Your task to perform on an android device: Open calendar and show me the fourth week of next month Image 0: 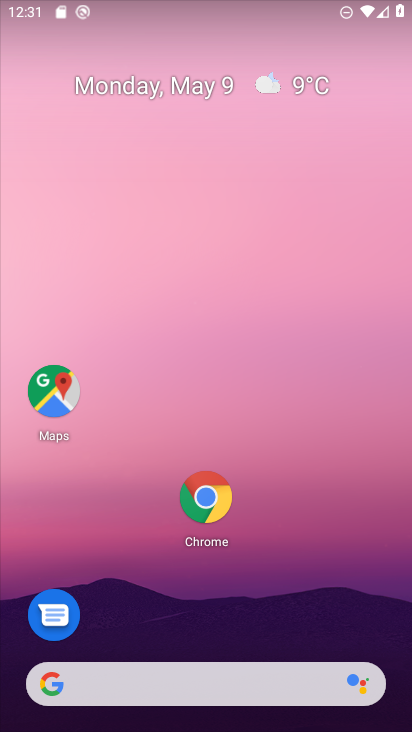
Step 0: drag from (282, 493) to (286, 11)
Your task to perform on an android device: Open calendar and show me the fourth week of next month Image 1: 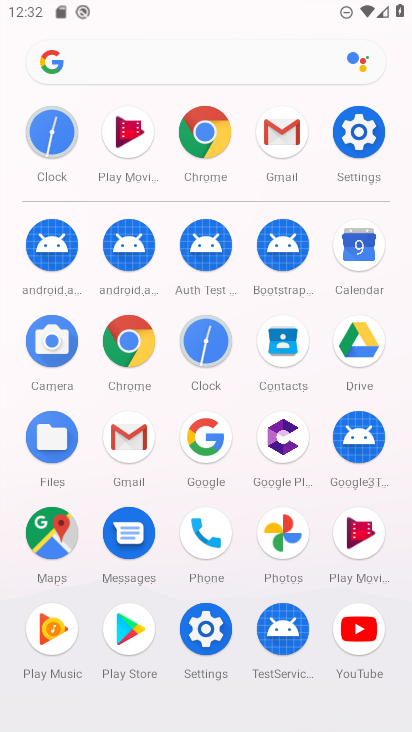
Step 1: click (348, 257)
Your task to perform on an android device: Open calendar and show me the fourth week of next month Image 2: 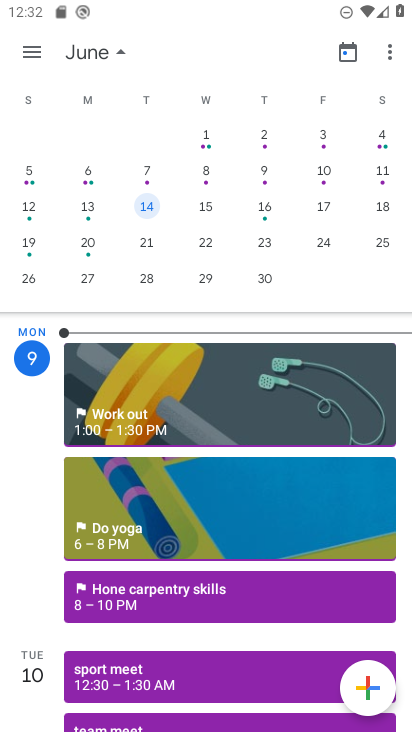
Step 2: click (145, 270)
Your task to perform on an android device: Open calendar and show me the fourth week of next month Image 3: 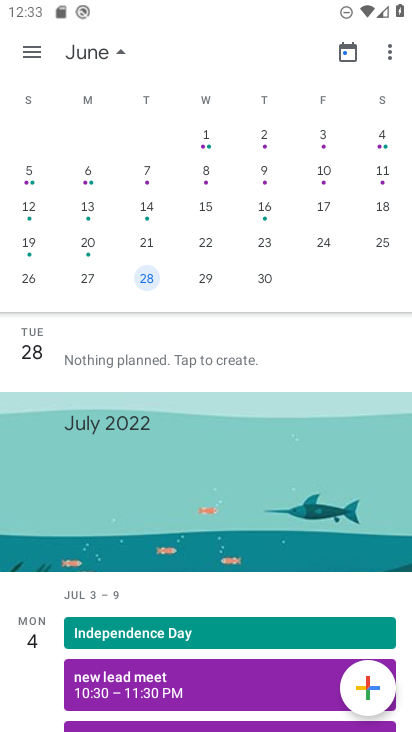
Step 3: task complete